Your task to perform on an android device: show emergency info Image 0: 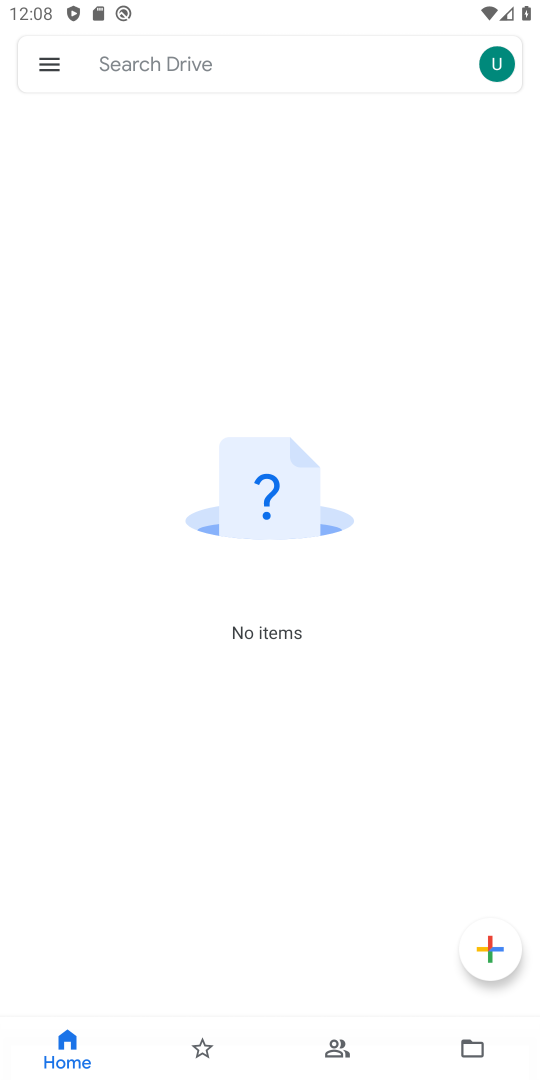
Step 0: press home button
Your task to perform on an android device: show emergency info Image 1: 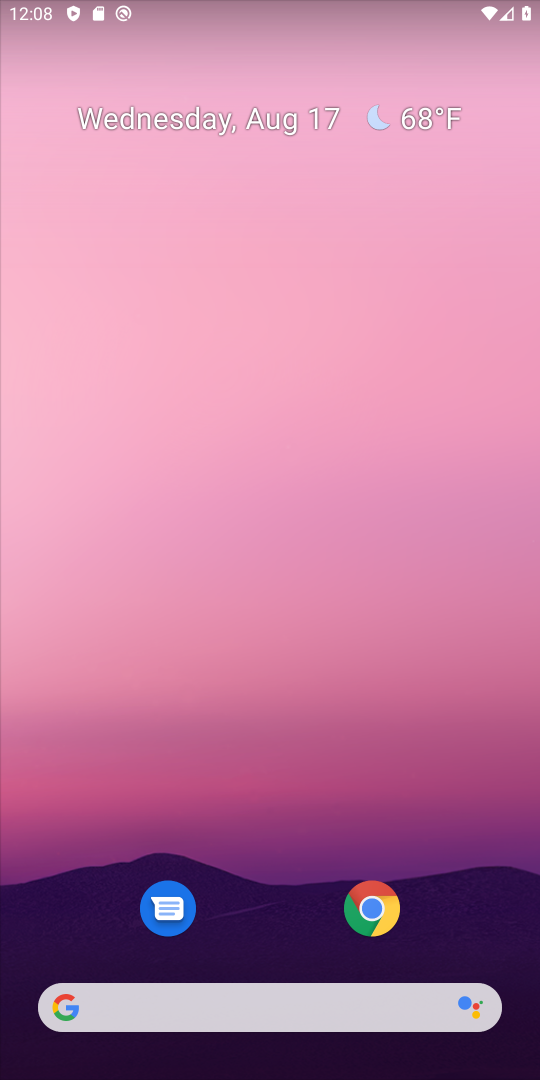
Step 1: drag from (276, 829) to (247, 310)
Your task to perform on an android device: show emergency info Image 2: 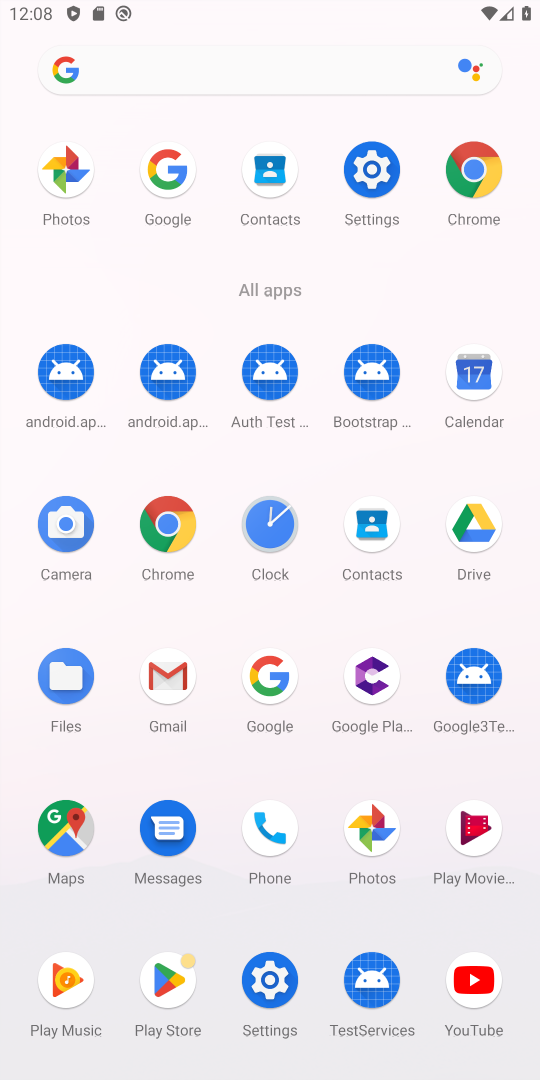
Step 2: click (386, 184)
Your task to perform on an android device: show emergency info Image 3: 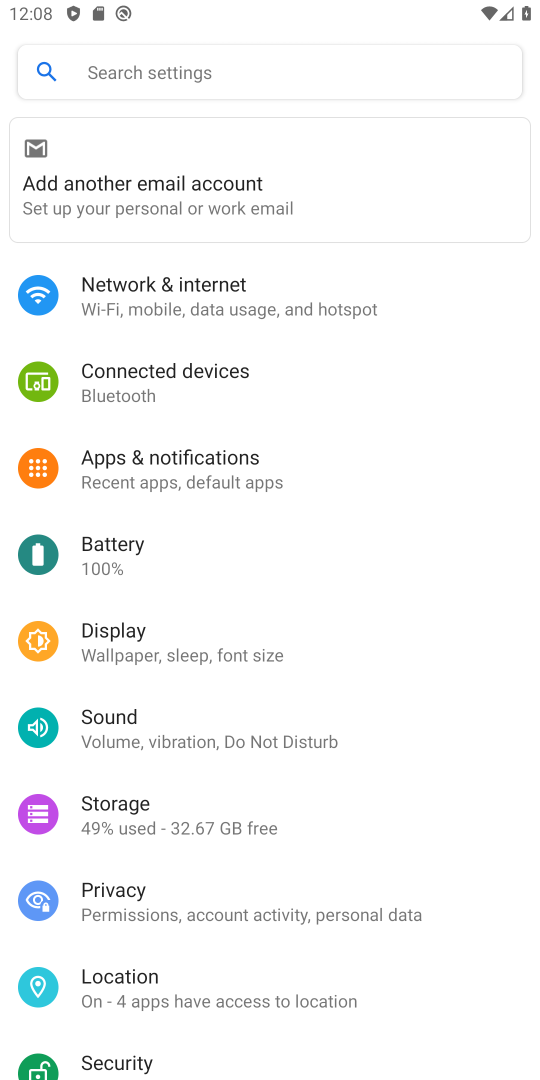
Step 3: drag from (240, 906) to (202, 206)
Your task to perform on an android device: show emergency info Image 4: 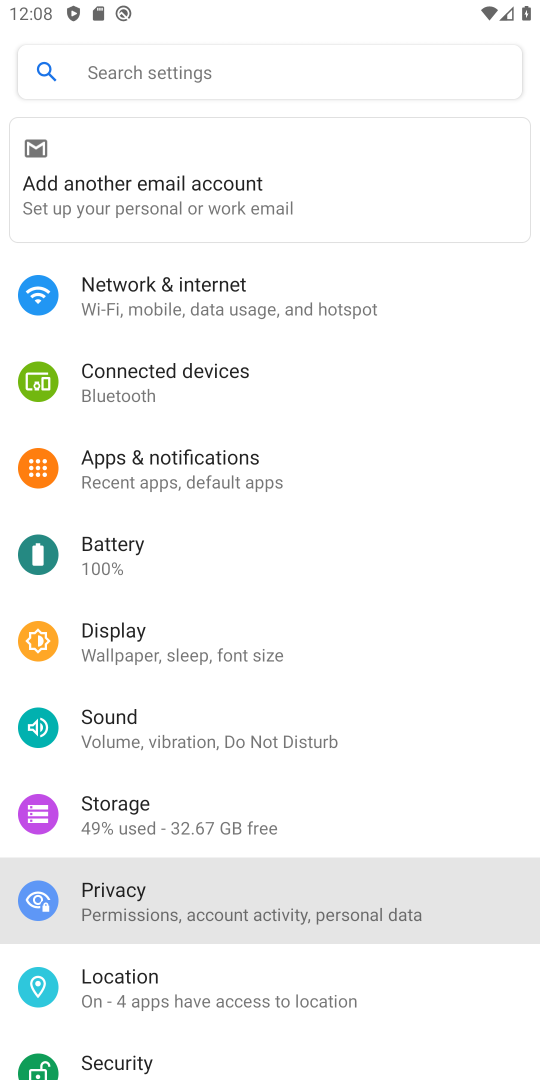
Step 4: drag from (171, 722) to (180, 162)
Your task to perform on an android device: show emergency info Image 5: 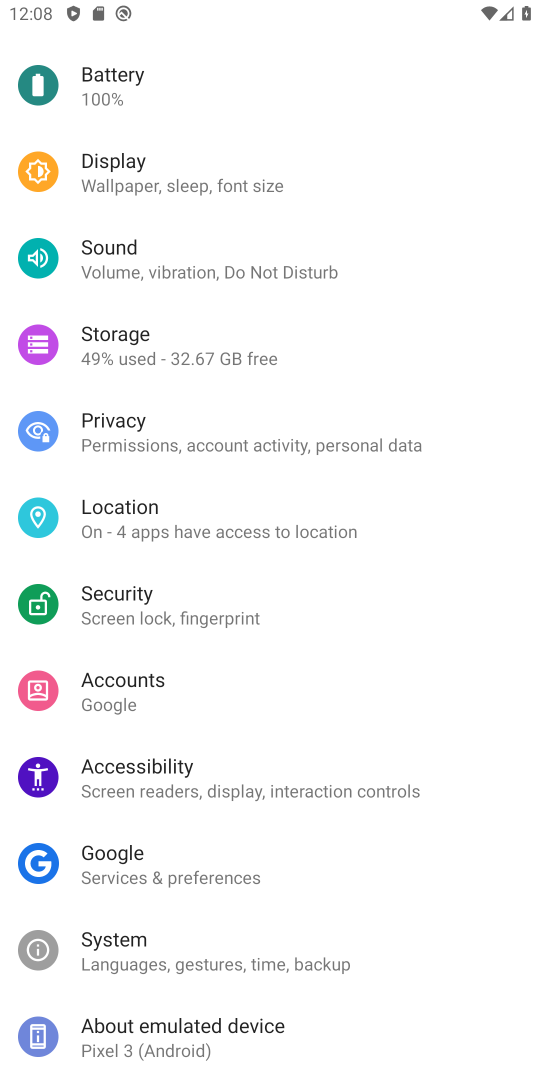
Step 5: drag from (222, 901) to (222, 292)
Your task to perform on an android device: show emergency info Image 6: 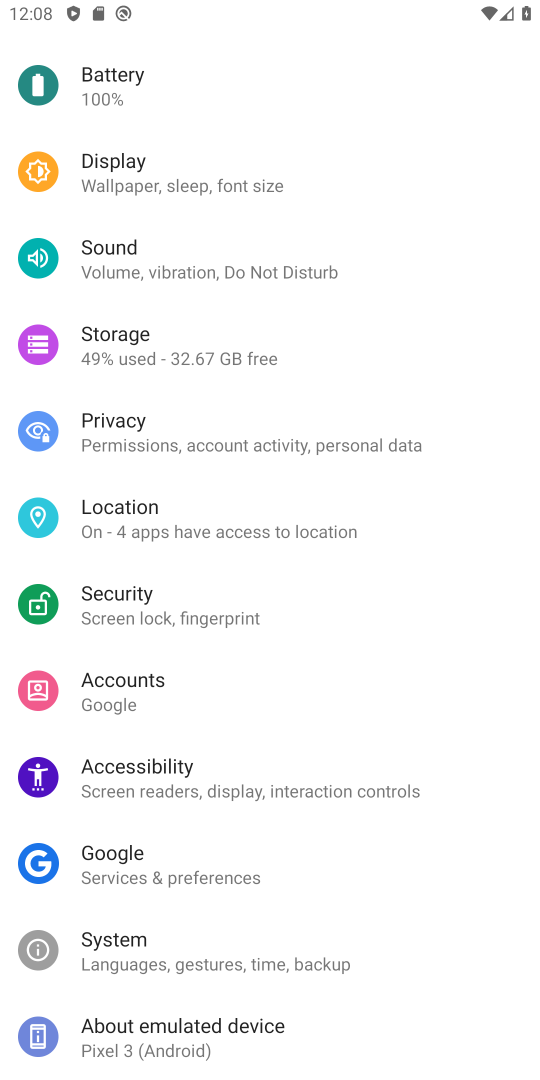
Step 6: click (183, 1017)
Your task to perform on an android device: show emergency info Image 7: 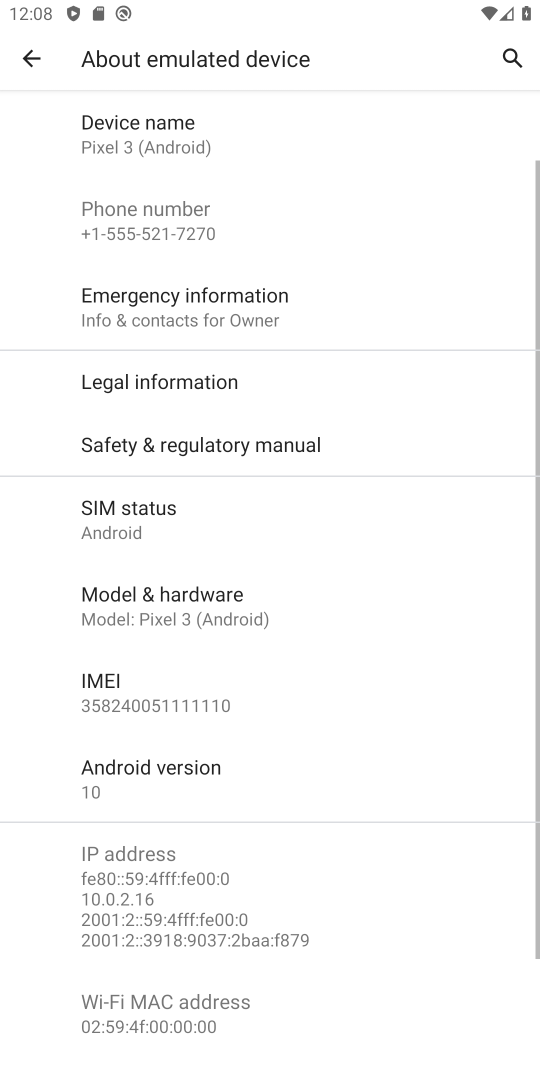
Step 7: click (188, 334)
Your task to perform on an android device: show emergency info Image 8: 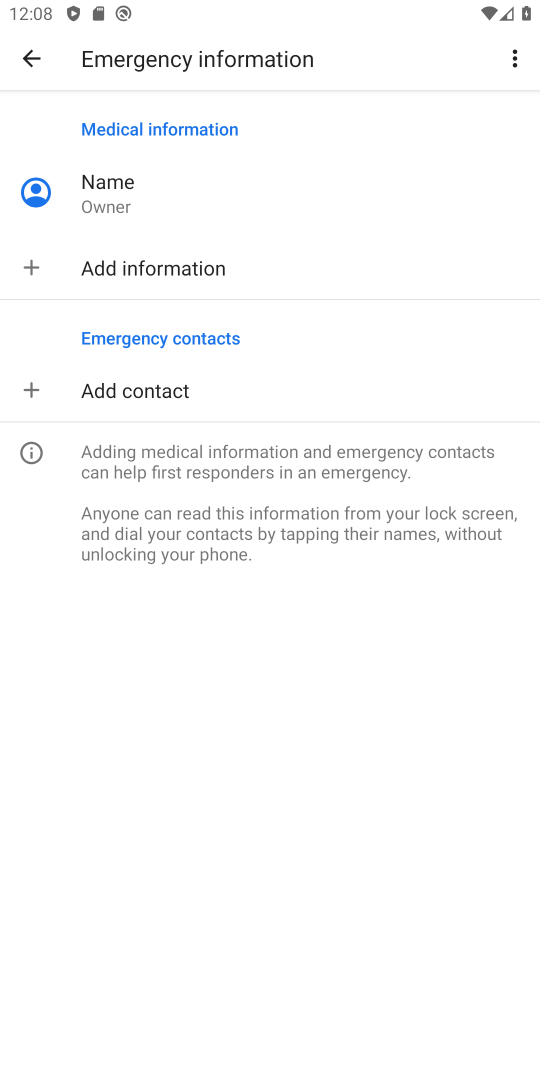
Step 8: task complete